Your task to perform on an android device: Open Maps and search for coffee Image 0: 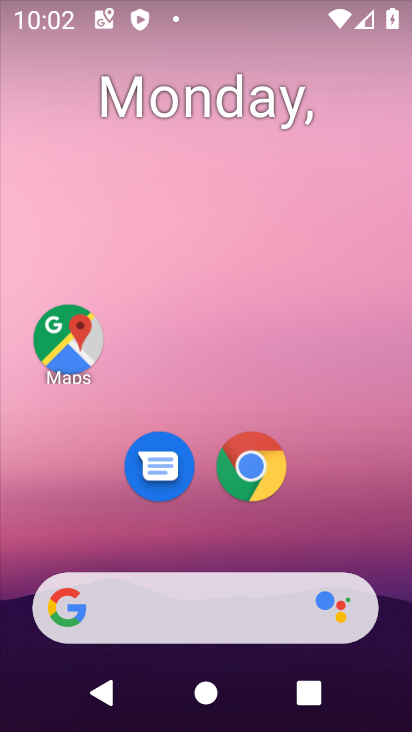
Step 0: click (68, 341)
Your task to perform on an android device: Open Maps and search for coffee Image 1: 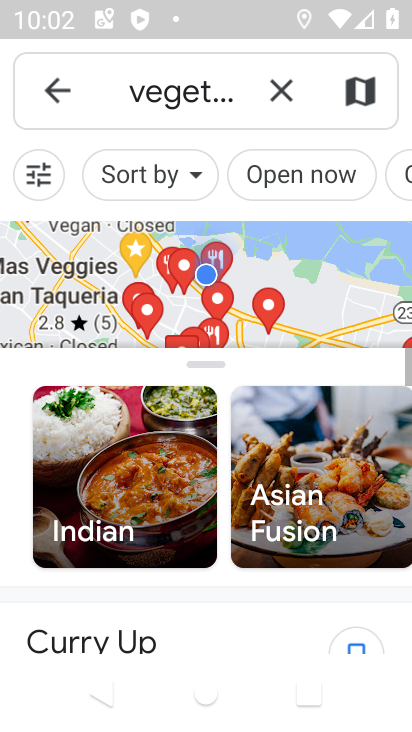
Step 1: click (274, 95)
Your task to perform on an android device: Open Maps and search for coffee Image 2: 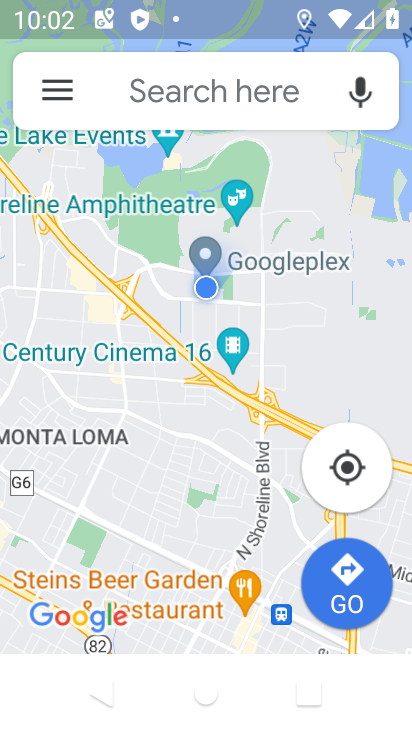
Step 2: type "coffee"
Your task to perform on an android device: Open Maps and search for coffee Image 3: 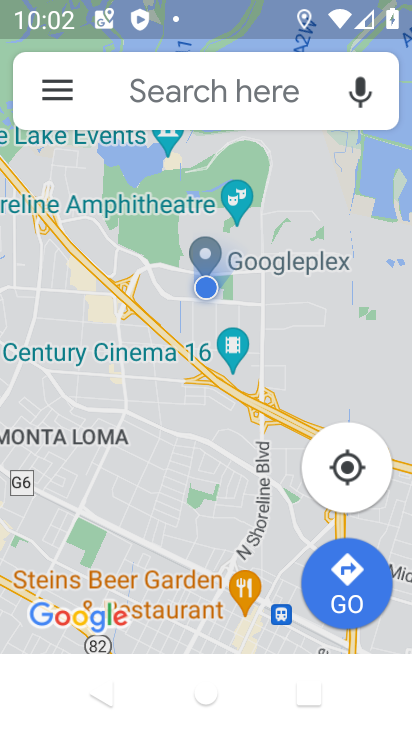
Step 3: click (203, 95)
Your task to perform on an android device: Open Maps and search for coffee Image 4: 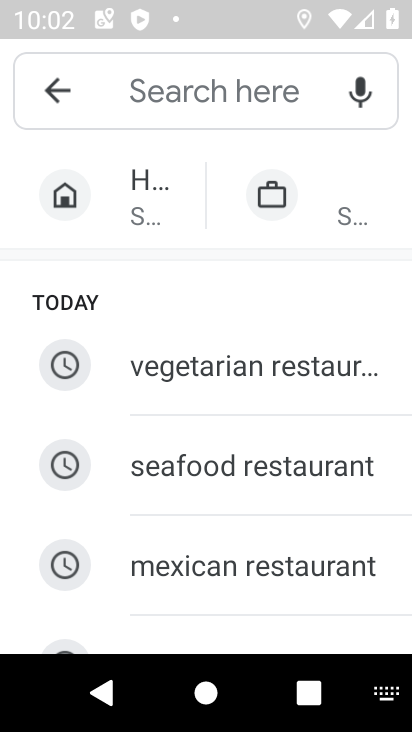
Step 4: type "coffee"
Your task to perform on an android device: Open Maps and search for coffee Image 5: 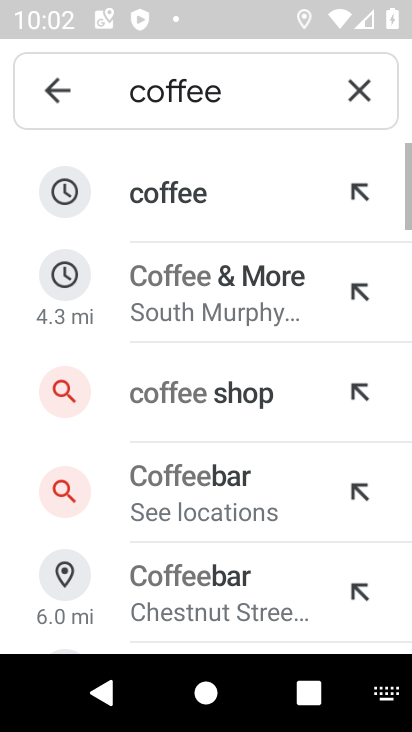
Step 5: click (175, 207)
Your task to perform on an android device: Open Maps and search for coffee Image 6: 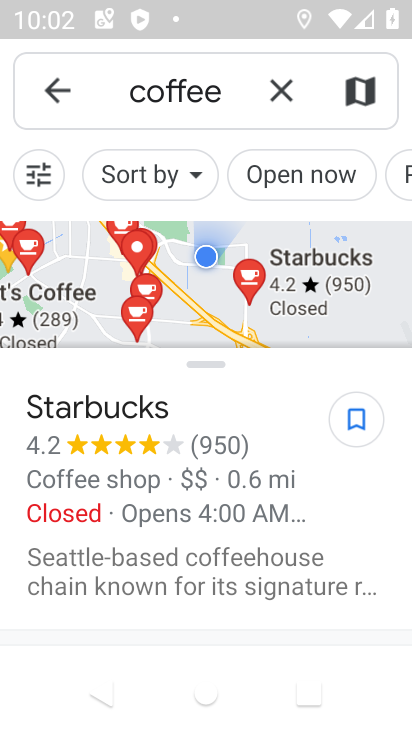
Step 6: task complete